Your task to perform on an android device: Is it going to rain tomorrow? Image 0: 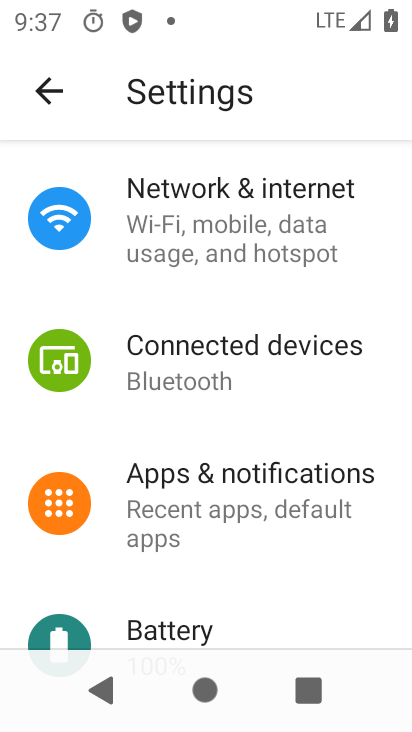
Step 0: press home button
Your task to perform on an android device: Is it going to rain tomorrow? Image 1: 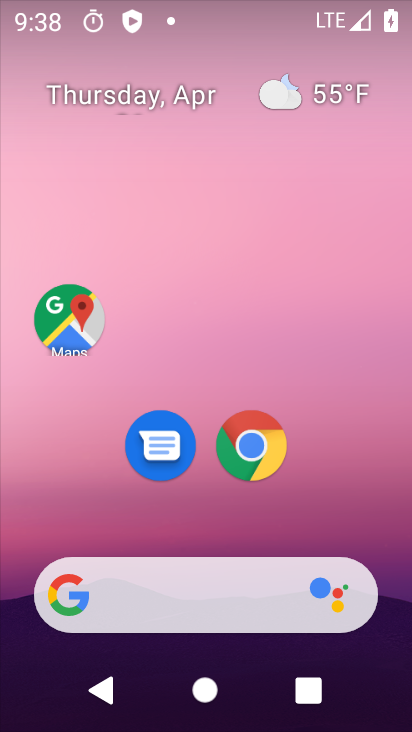
Step 1: click (305, 100)
Your task to perform on an android device: Is it going to rain tomorrow? Image 2: 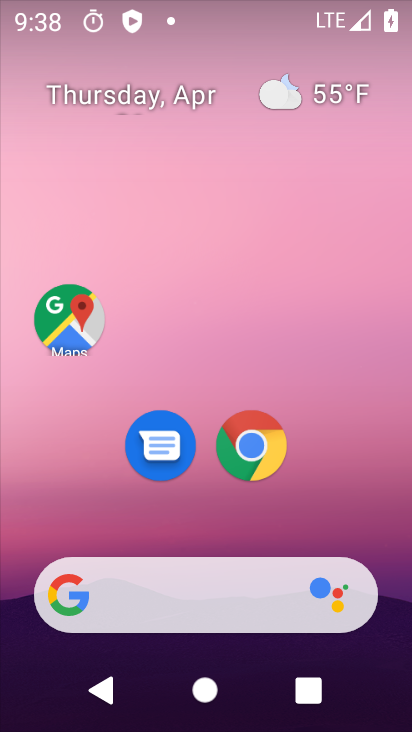
Step 2: click (333, 98)
Your task to perform on an android device: Is it going to rain tomorrow? Image 3: 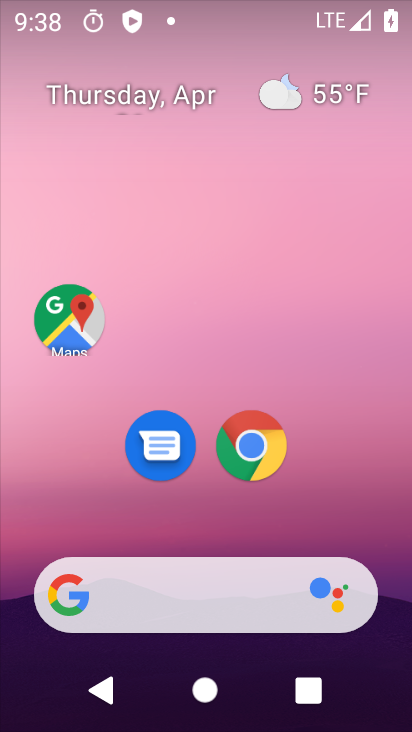
Step 3: click (337, 96)
Your task to perform on an android device: Is it going to rain tomorrow? Image 4: 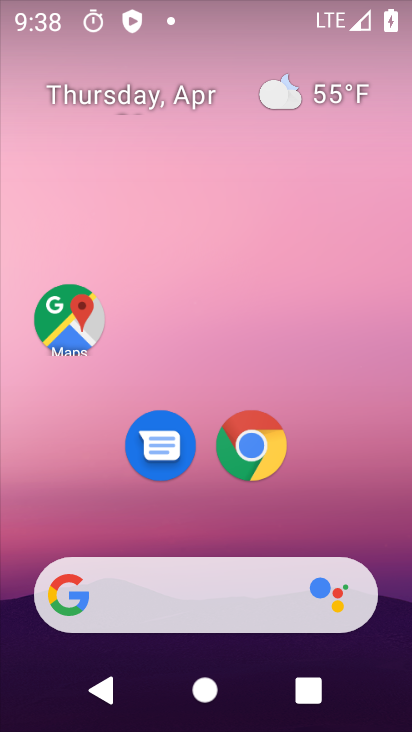
Step 4: click (281, 88)
Your task to perform on an android device: Is it going to rain tomorrow? Image 5: 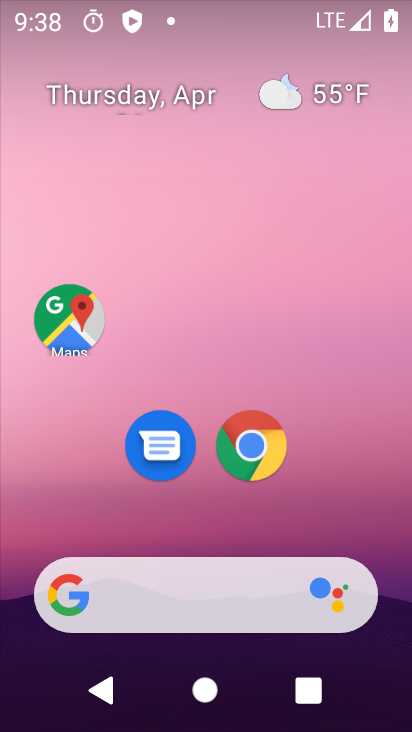
Step 5: drag from (353, 401) to (364, 183)
Your task to perform on an android device: Is it going to rain tomorrow? Image 6: 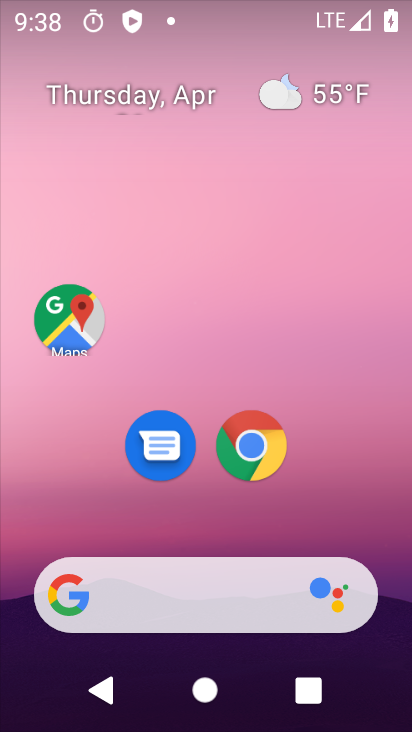
Step 6: drag from (364, 183) to (384, 377)
Your task to perform on an android device: Is it going to rain tomorrow? Image 7: 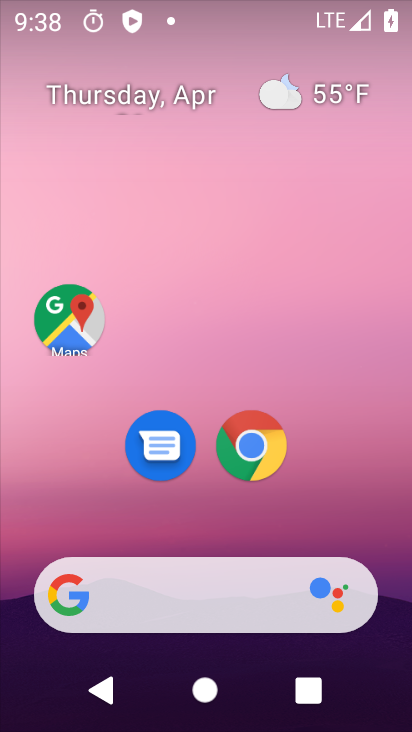
Step 7: click (317, 104)
Your task to perform on an android device: Is it going to rain tomorrow? Image 8: 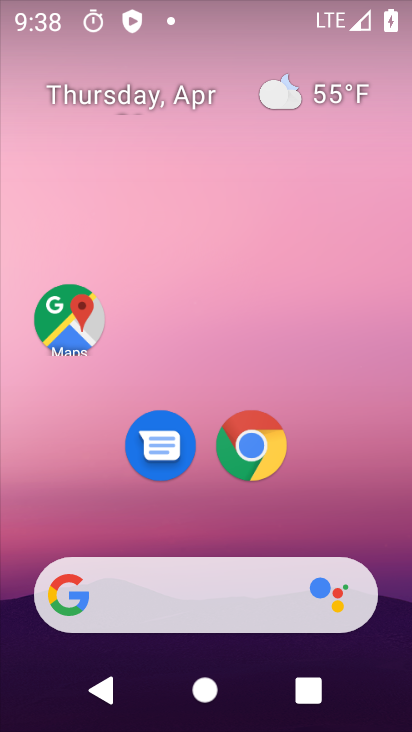
Step 8: click (346, 98)
Your task to perform on an android device: Is it going to rain tomorrow? Image 9: 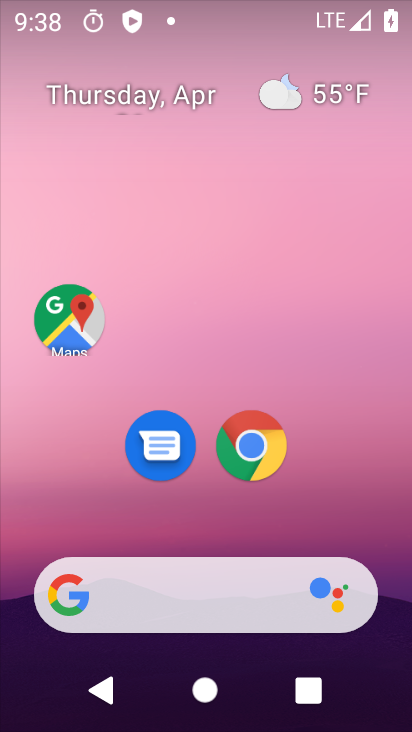
Step 9: click (299, 88)
Your task to perform on an android device: Is it going to rain tomorrow? Image 10: 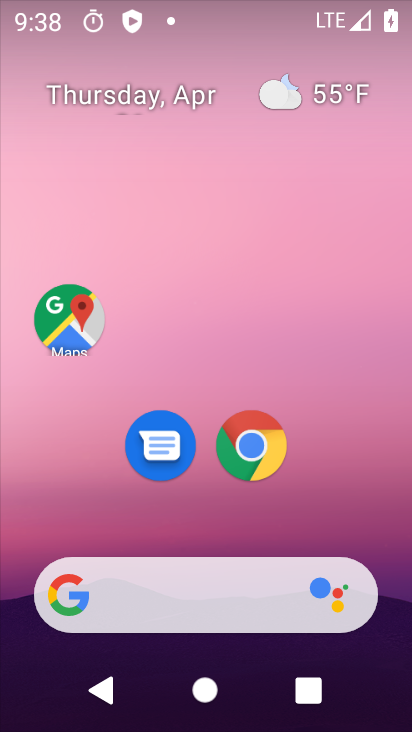
Step 10: click (287, 98)
Your task to perform on an android device: Is it going to rain tomorrow? Image 11: 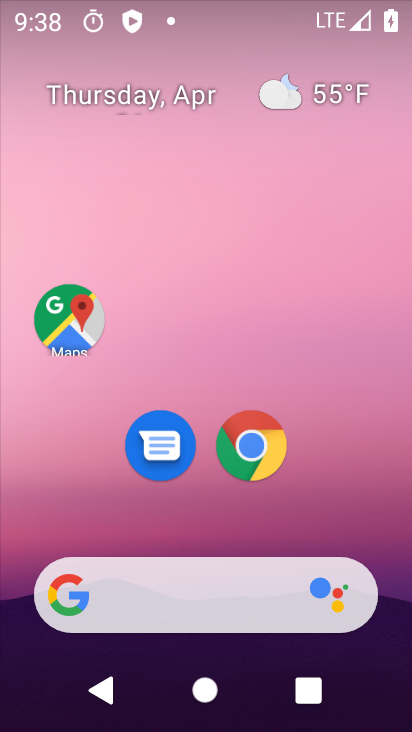
Step 11: click (321, 177)
Your task to perform on an android device: Is it going to rain tomorrow? Image 12: 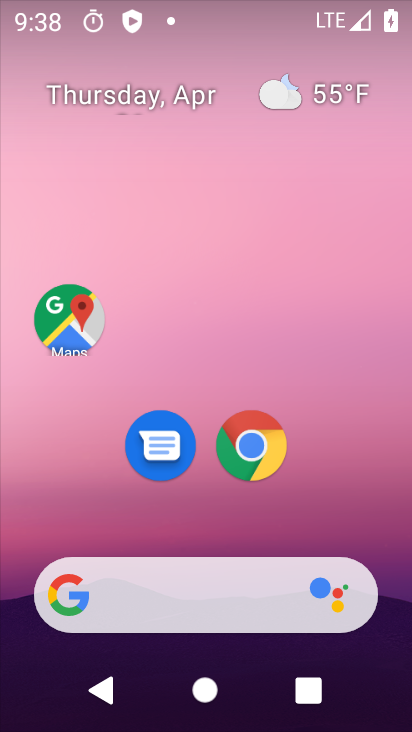
Step 12: click (336, 95)
Your task to perform on an android device: Is it going to rain tomorrow? Image 13: 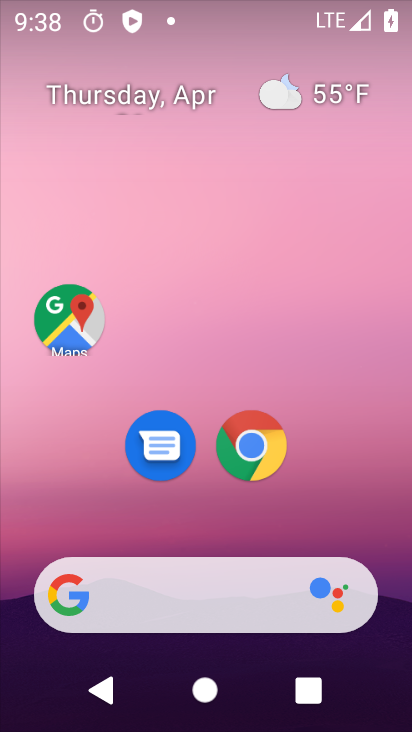
Step 13: click (354, 86)
Your task to perform on an android device: Is it going to rain tomorrow? Image 14: 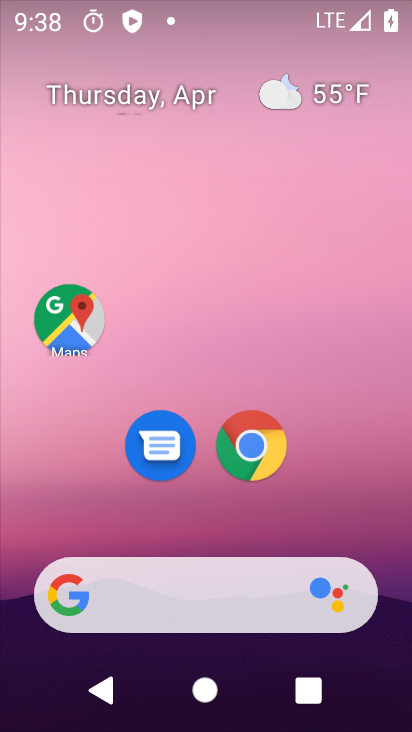
Step 14: click (286, 93)
Your task to perform on an android device: Is it going to rain tomorrow? Image 15: 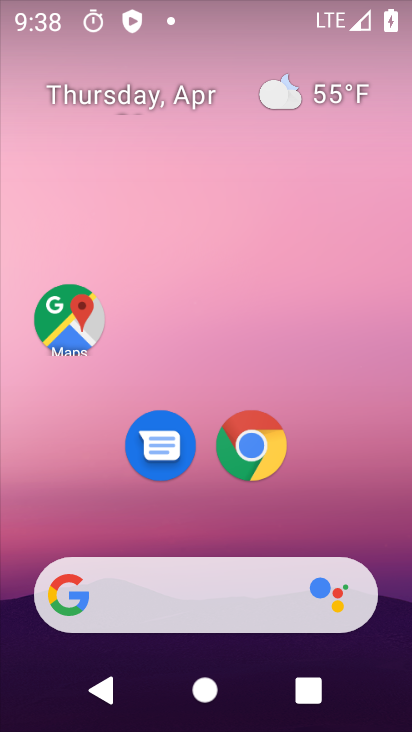
Step 15: click (358, 209)
Your task to perform on an android device: Is it going to rain tomorrow? Image 16: 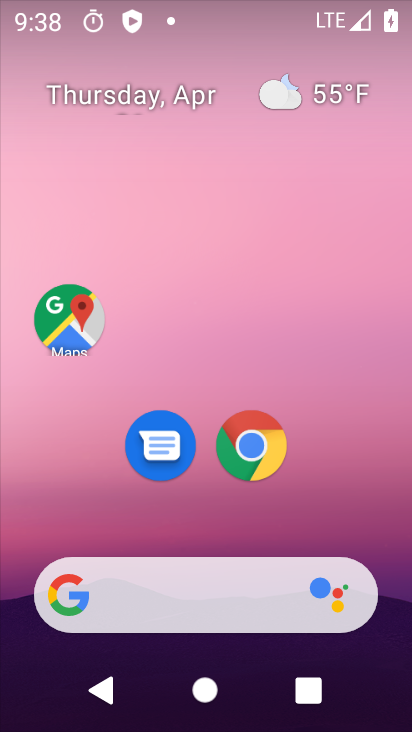
Step 16: click (278, 77)
Your task to perform on an android device: Is it going to rain tomorrow? Image 17: 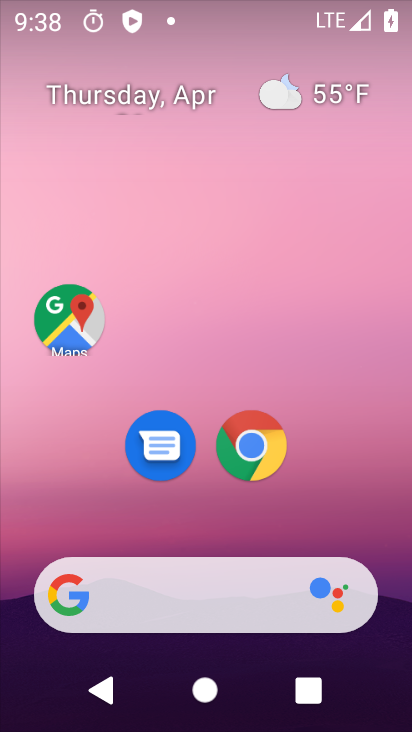
Step 17: drag from (187, 242) to (410, 229)
Your task to perform on an android device: Is it going to rain tomorrow? Image 18: 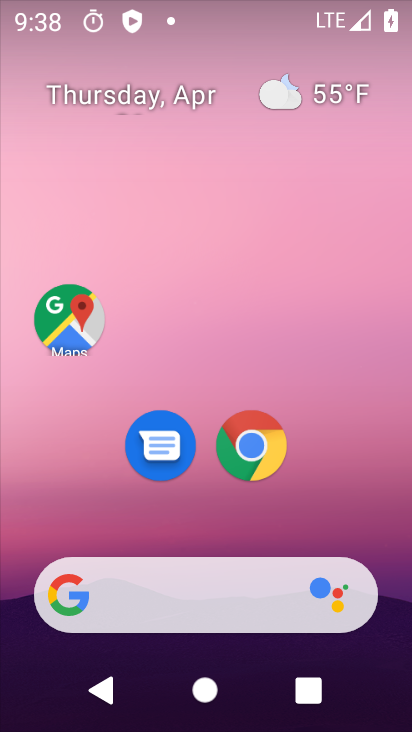
Step 18: click (338, 97)
Your task to perform on an android device: Is it going to rain tomorrow? Image 19: 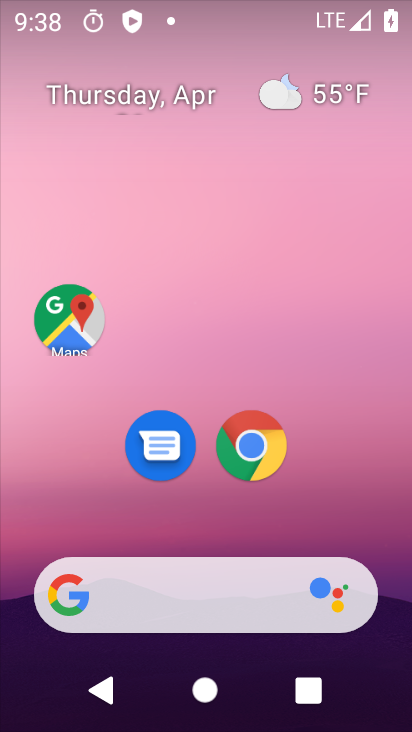
Step 19: click (324, 85)
Your task to perform on an android device: Is it going to rain tomorrow? Image 20: 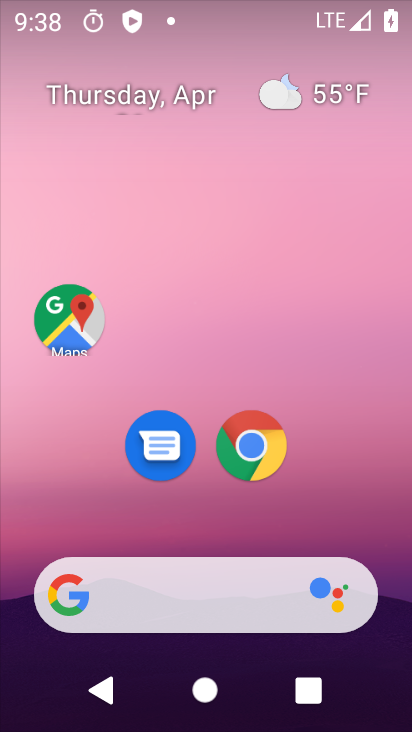
Step 20: click (327, 96)
Your task to perform on an android device: Is it going to rain tomorrow? Image 21: 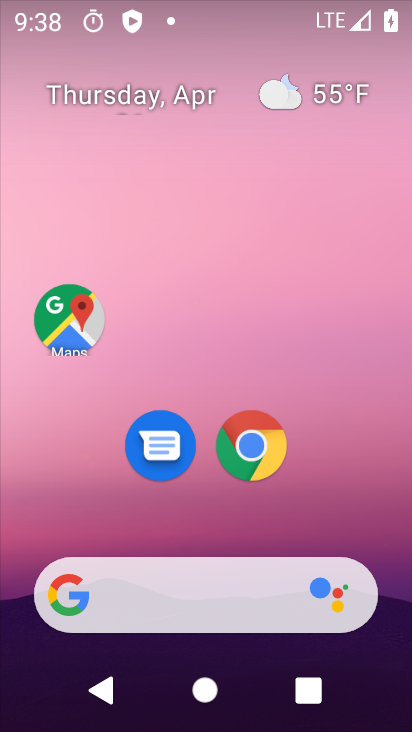
Step 21: click (348, 259)
Your task to perform on an android device: Is it going to rain tomorrow? Image 22: 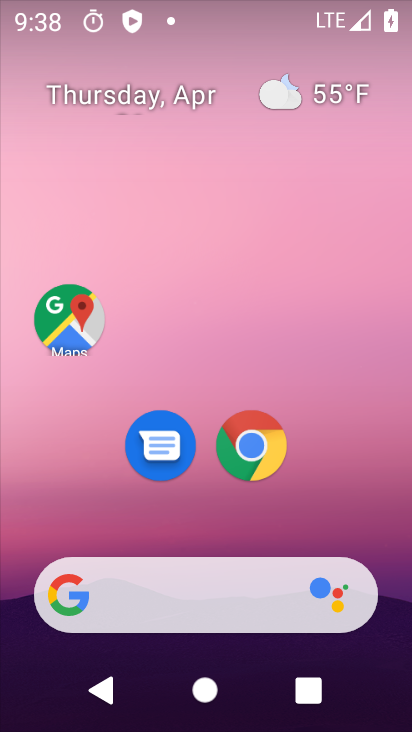
Step 22: click (318, 99)
Your task to perform on an android device: Is it going to rain tomorrow? Image 23: 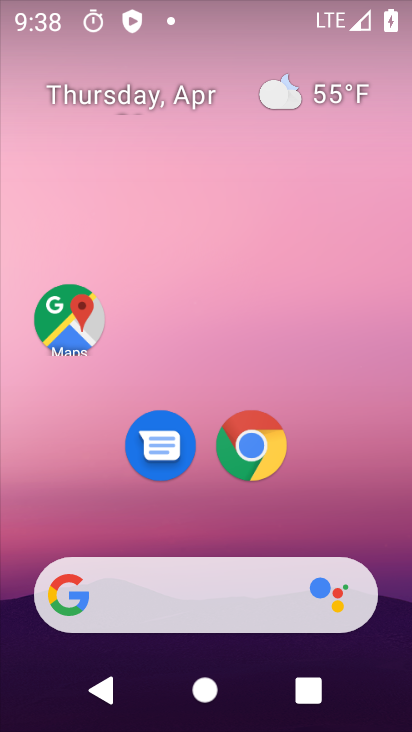
Step 23: click (318, 99)
Your task to perform on an android device: Is it going to rain tomorrow? Image 24: 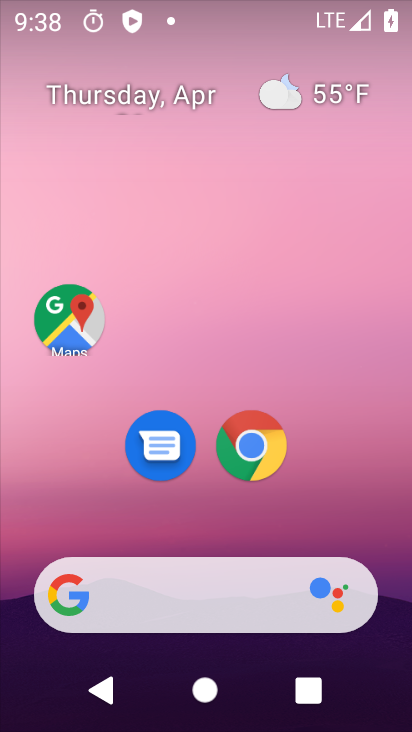
Step 24: click (286, 102)
Your task to perform on an android device: Is it going to rain tomorrow? Image 25: 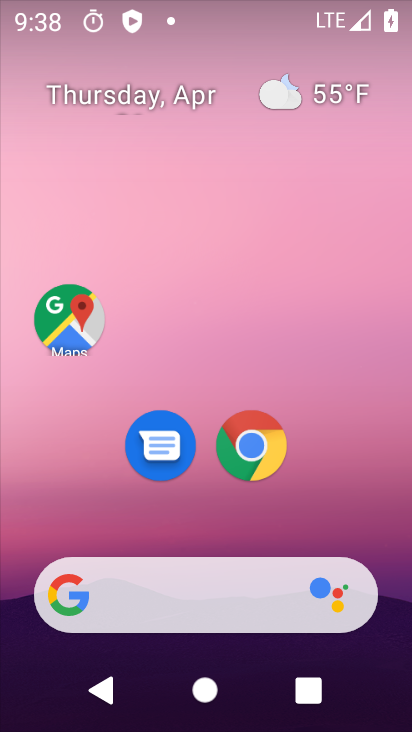
Step 25: click (329, 90)
Your task to perform on an android device: Is it going to rain tomorrow? Image 26: 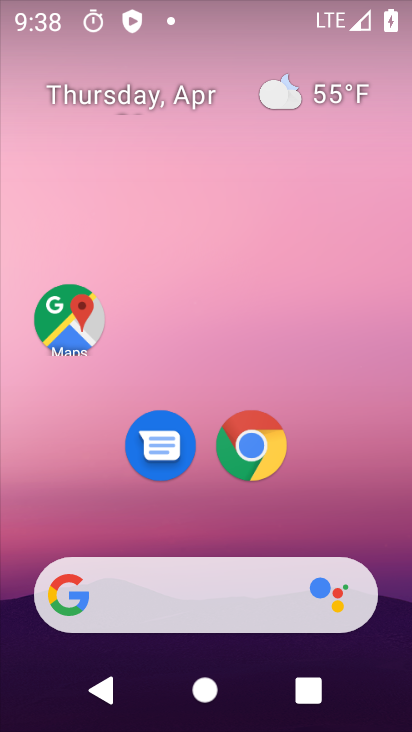
Step 26: drag from (45, 183) to (408, 287)
Your task to perform on an android device: Is it going to rain tomorrow? Image 27: 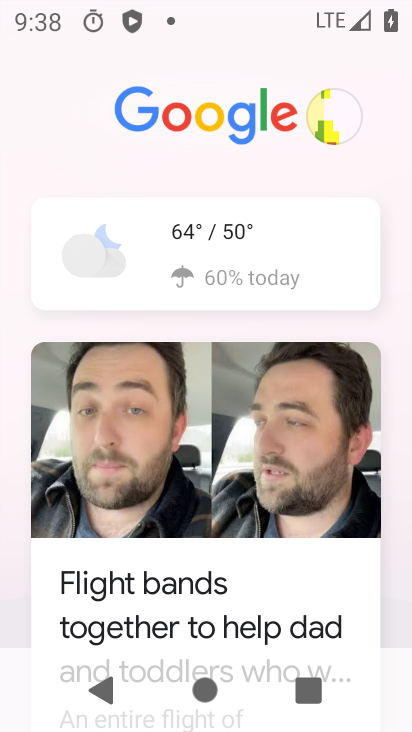
Step 27: click (195, 239)
Your task to perform on an android device: Is it going to rain tomorrow? Image 28: 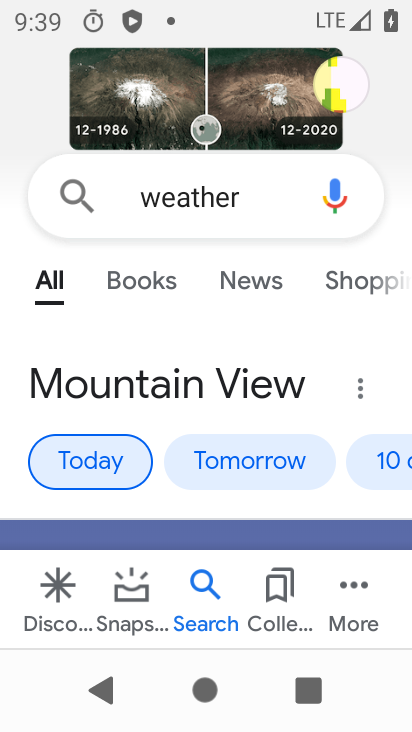
Step 28: click (230, 468)
Your task to perform on an android device: Is it going to rain tomorrow? Image 29: 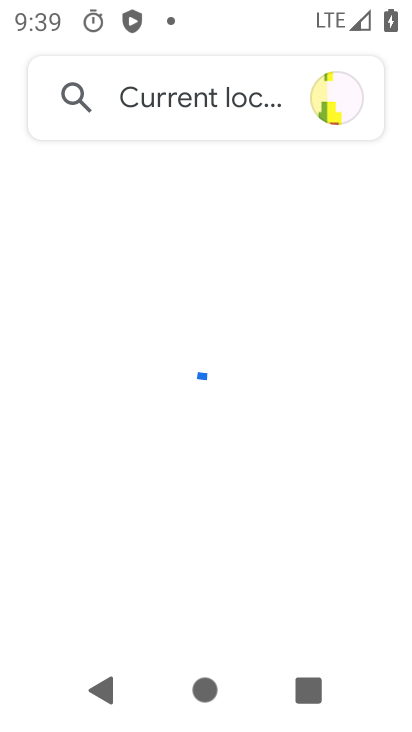
Step 29: drag from (296, 355) to (297, 249)
Your task to perform on an android device: Is it going to rain tomorrow? Image 30: 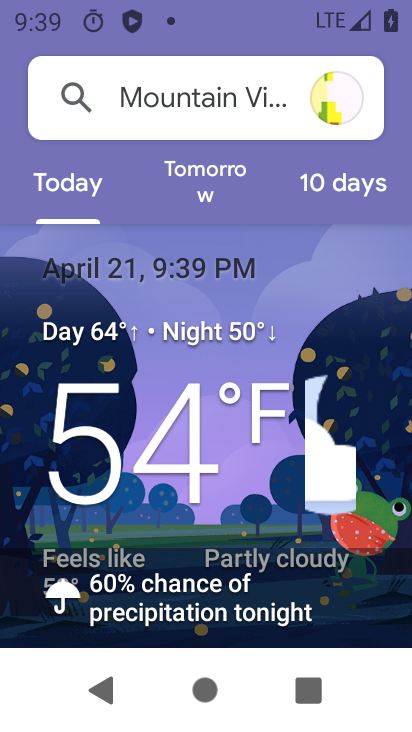
Step 30: click (190, 163)
Your task to perform on an android device: Is it going to rain tomorrow? Image 31: 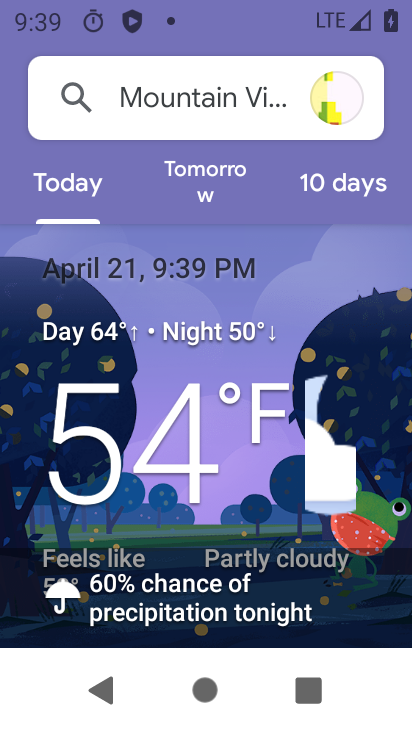
Step 31: click (214, 186)
Your task to perform on an android device: Is it going to rain tomorrow? Image 32: 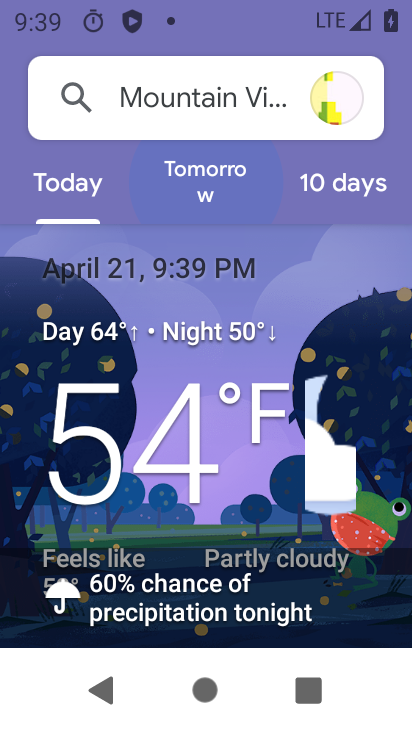
Step 32: click (210, 196)
Your task to perform on an android device: Is it going to rain tomorrow? Image 33: 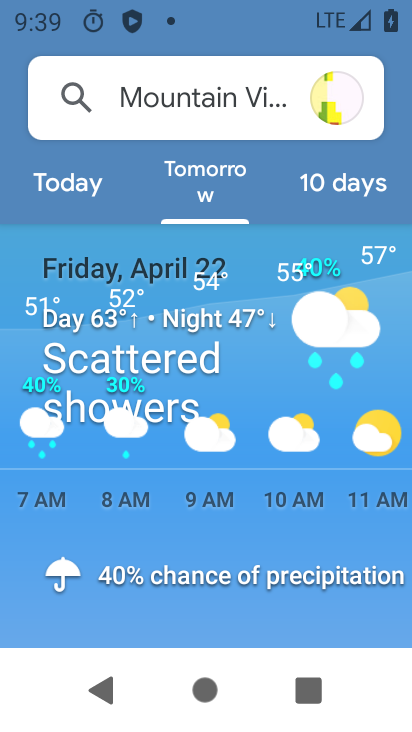
Step 33: task complete